Your task to perform on an android device: Open the web browser Image 0: 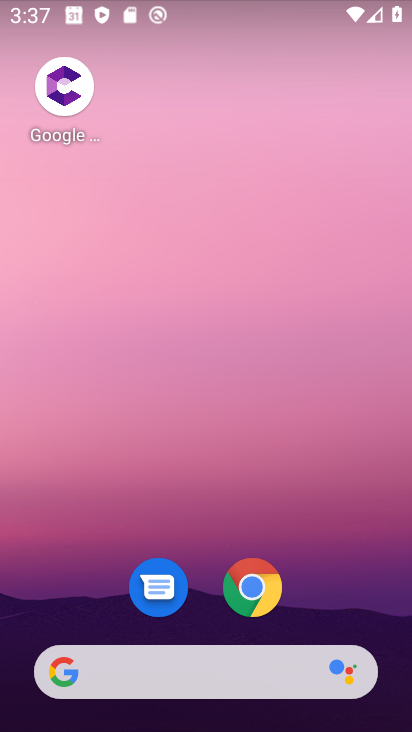
Step 0: click (294, 482)
Your task to perform on an android device: Open the web browser Image 1: 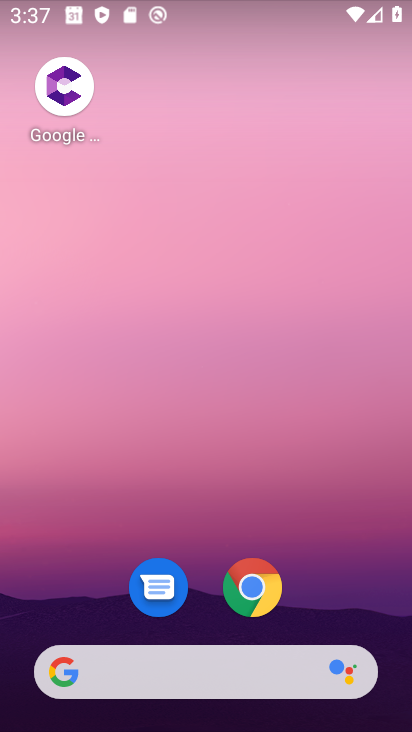
Step 1: drag from (251, 594) to (337, 156)
Your task to perform on an android device: Open the web browser Image 2: 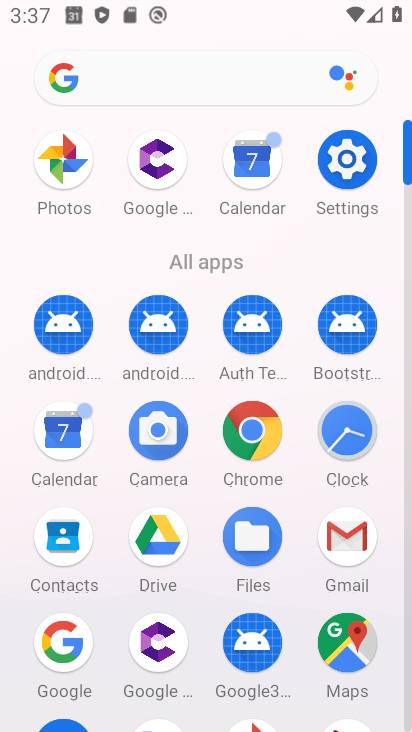
Step 2: click (278, 435)
Your task to perform on an android device: Open the web browser Image 3: 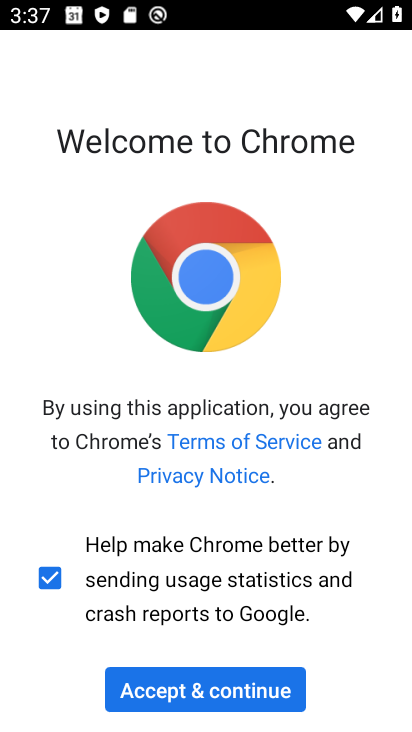
Step 3: click (255, 686)
Your task to perform on an android device: Open the web browser Image 4: 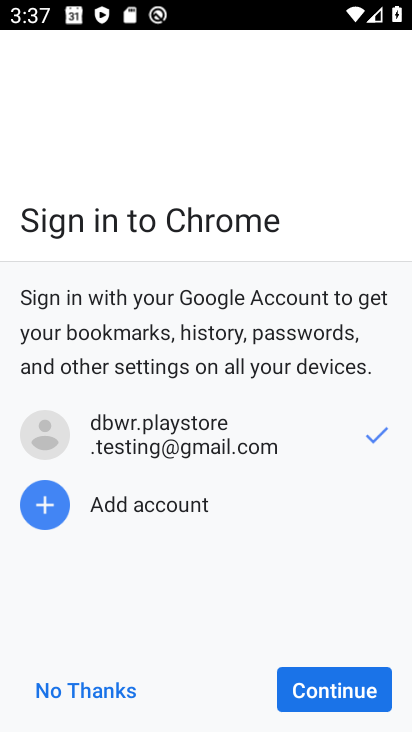
Step 4: click (306, 663)
Your task to perform on an android device: Open the web browser Image 5: 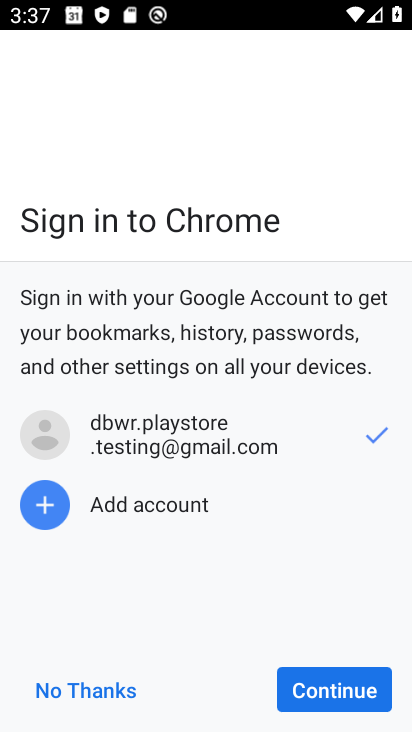
Step 5: click (342, 703)
Your task to perform on an android device: Open the web browser Image 6: 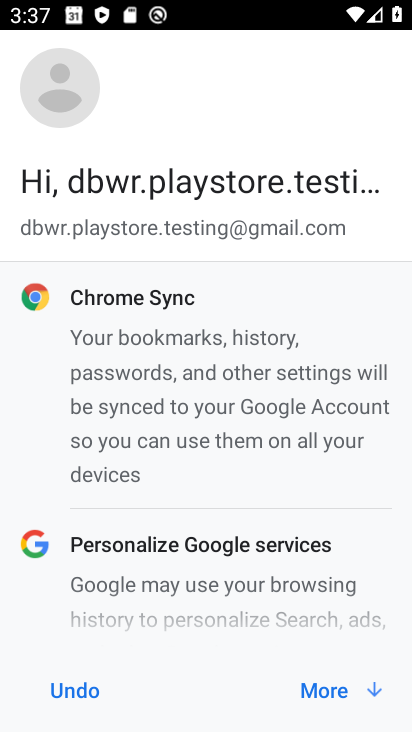
Step 6: click (344, 701)
Your task to perform on an android device: Open the web browser Image 7: 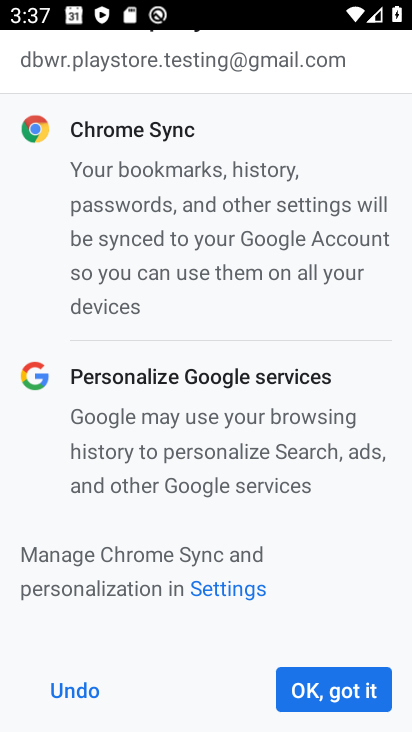
Step 7: click (345, 701)
Your task to perform on an android device: Open the web browser Image 8: 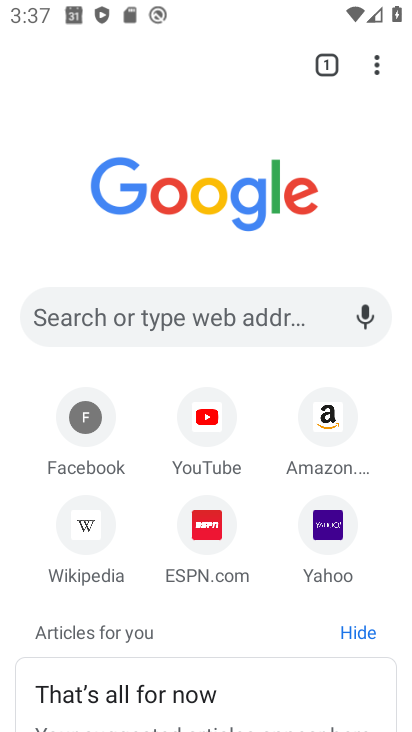
Step 8: task complete